Your task to perform on an android device: Open maps Image 0: 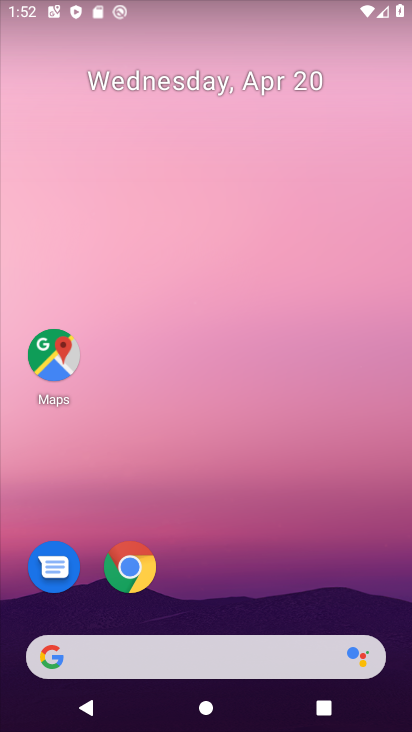
Step 0: click (56, 366)
Your task to perform on an android device: Open maps Image 1: 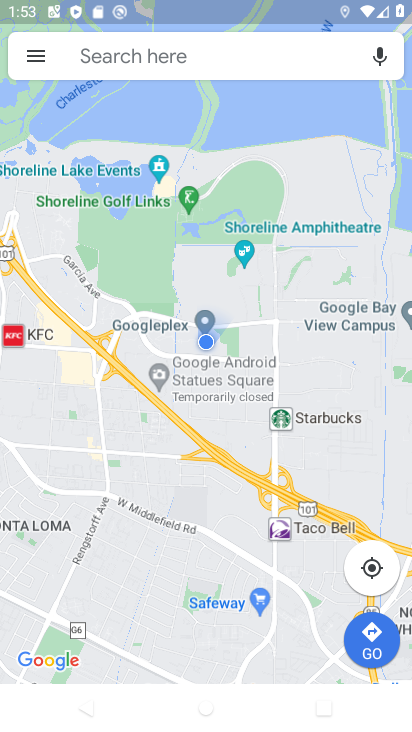
Step 1: task complete